Your task to perform on an android device: toggle javascript in the chrome app Image 0: 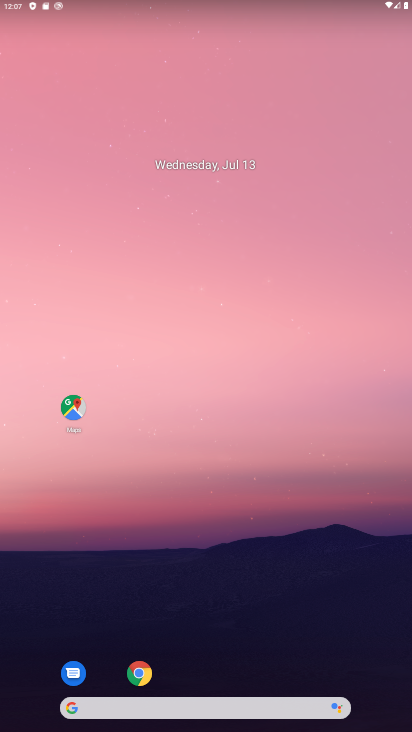
Step 0: click (140, 672)
Your task to perform on an android device: toggle javascript in the chrome app Image 1: 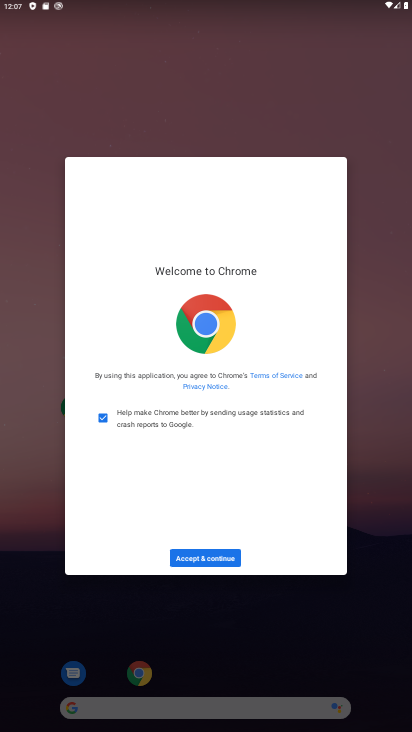
Step 1: click (223, 564)
Your task to perform on an android device: toggle javascript in the chrome app Image 2: 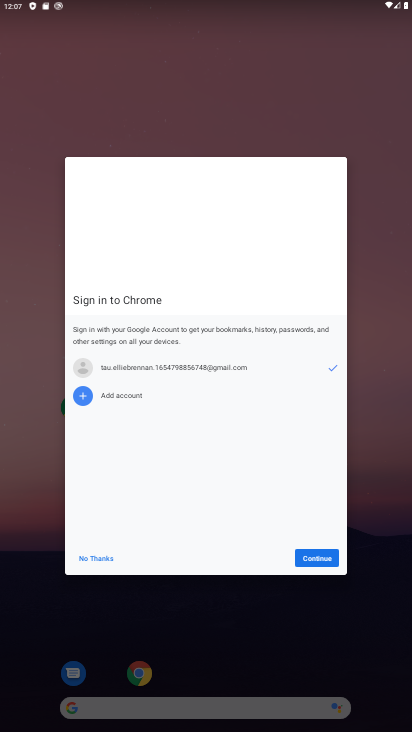
Step 2: click (304, 556)
Your task to perform on an android device: toggle javascript in the chrome app Image 3: 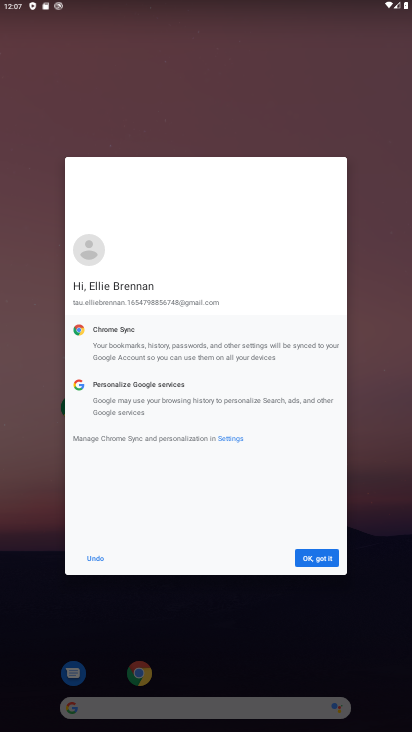
Step 3: click (304, 556)
Your task to perform on an android device: toggle javascript in the chrome app Image 4: 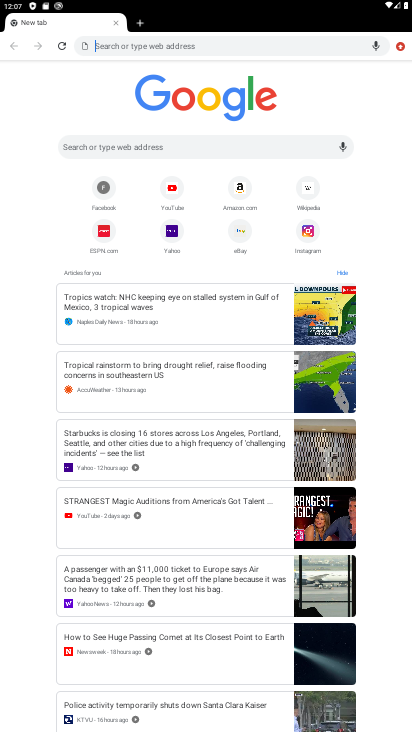
Step 4: click (401, 43)
Your task to perform on an android device: toggle javascript in the chrome app Image 5: 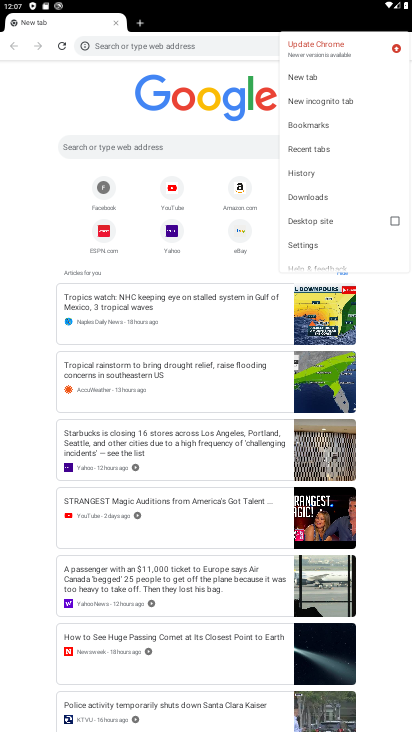
Step 5: click (333, 247)
Your task to perform on an android device: toggle javascript in the chrome app Image 6: 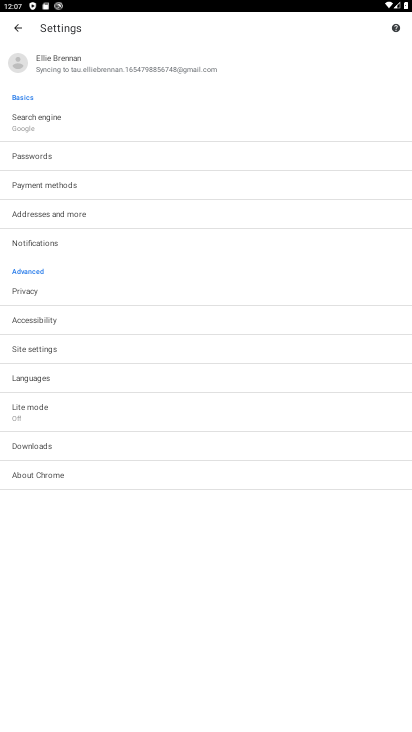
Step 6: click (191, 351)
Your task to perform on an android device: toggle javascript in the chrome app Image 7: 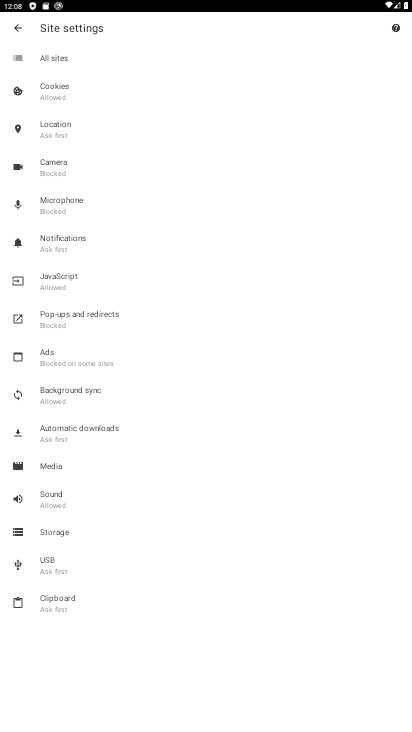
Step 7: click (124, 289)
Your task to perform on an android device: toggle javascript in the chrome app Image 8: 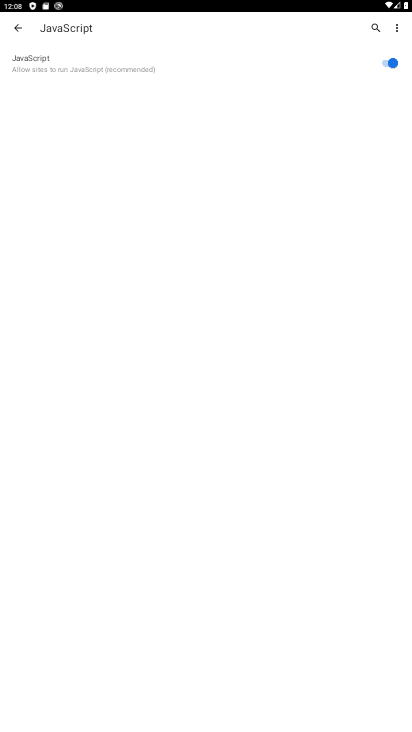
Step 8: click (402, 68)
Your task to perform on an android device: toggle javascript in the chrome app Image 9: 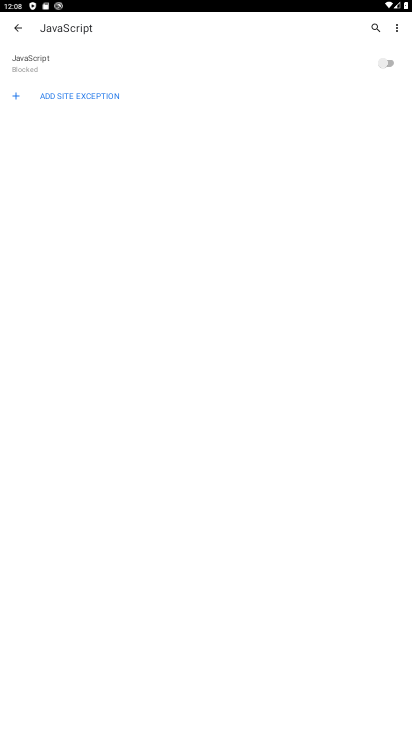
Step 9: task complete